Your task to perform on an android device: Go to Amazon Image 0: 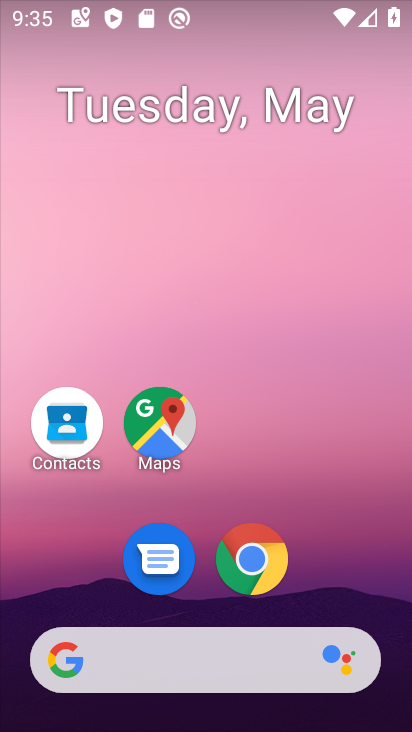
Step 0: click (268, 582)
Your task to perform on an android device: Go to Amazon Image 1: 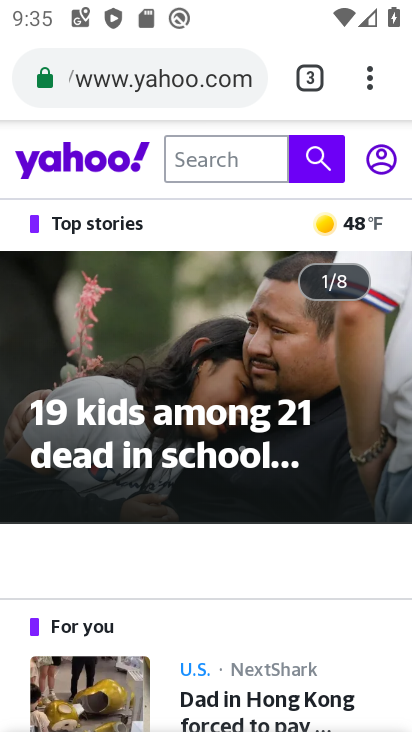
Step 1: click (204, 91)
Your task to perform on an android device: Go to Amazon Image 2: 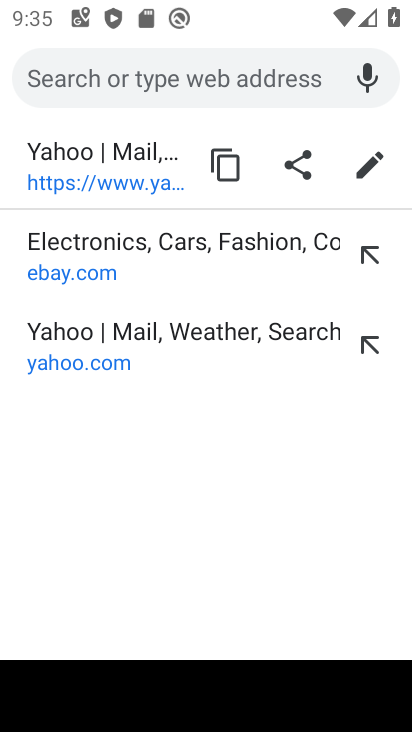
Step 2: type "amazo"
Your task to perform on an android device: Go to Amazon Image 3: 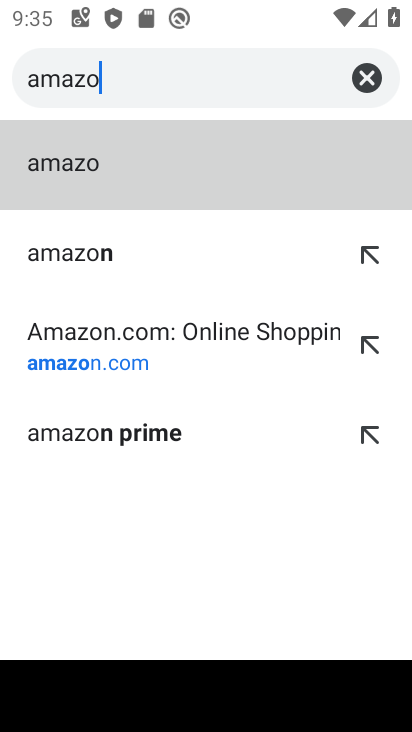
Step 3: click (96, 263)
Your task to perform on an android device: Go to Amazon Image 4: 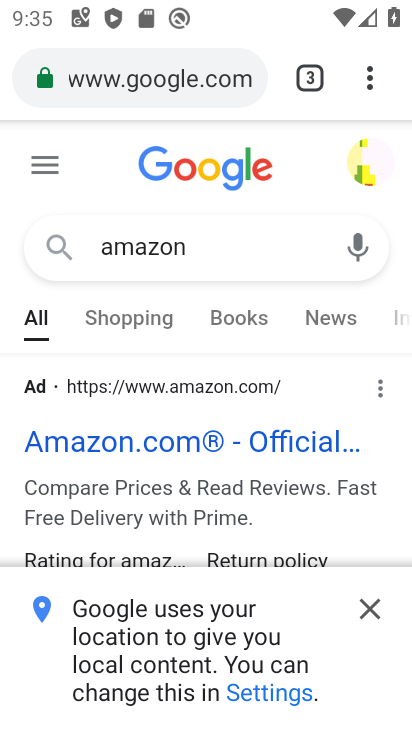
Step 4: click (136, 451)
Your task to perform on an android device: Go to Amazon Image 5: 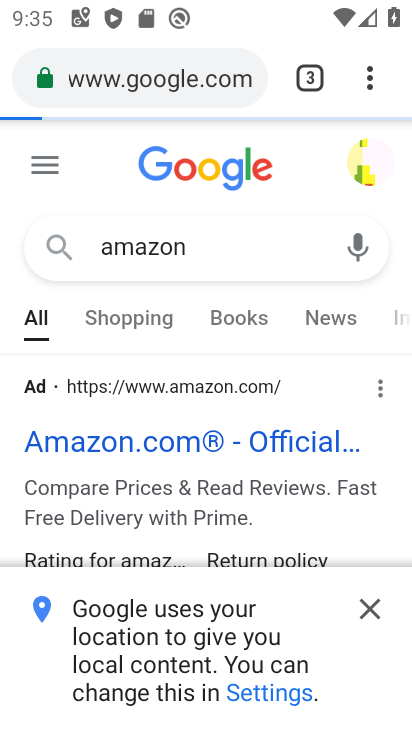
Step 5: task complete